Your task to perform on an android device: Open Youtube and go to the subscriptions tab Image 0: 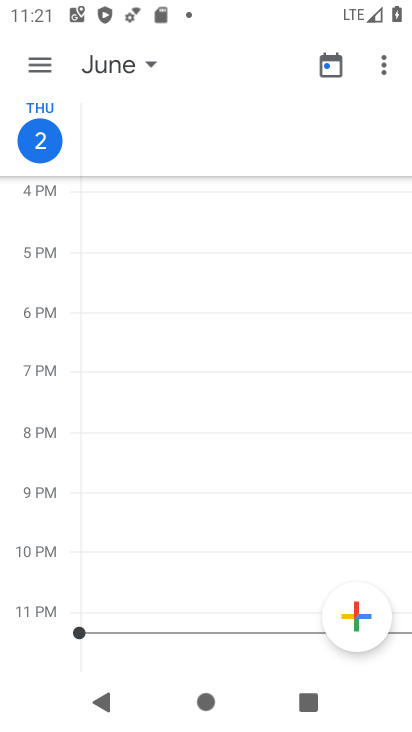
Step 0: press home button
Your task to perform on an android device: Open Youtube and go to the subscriptions tab Image 1: 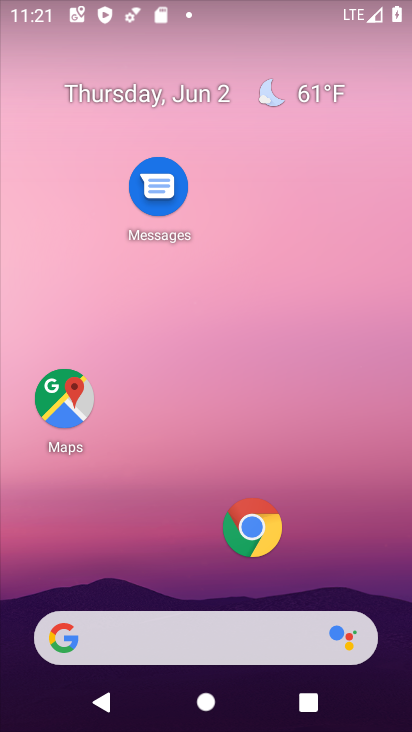
Step 1: drag from (211, 589) to (204, 135)
Your task to perform on an android device: Open Youtube and go to the subscriptions tab Image 2: 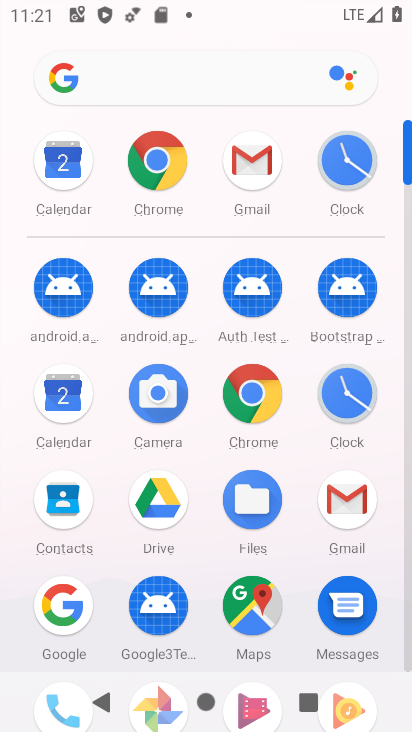
Step 2: drag from (293, 586) to (340, 125)
Your task to perform on an android device: Open Youtube and go to the subscriptions tab Image 3: 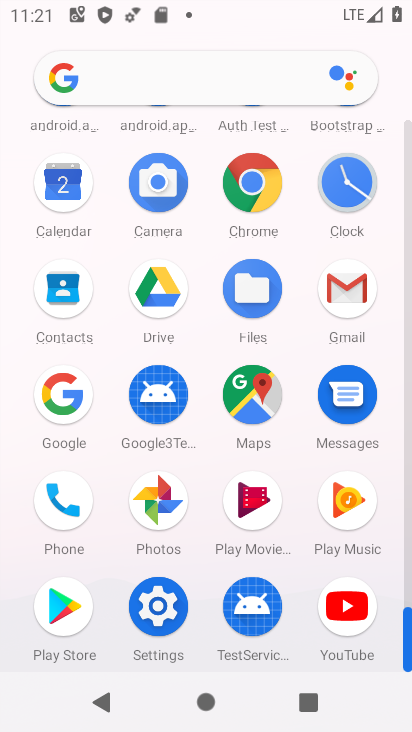
Step 3: click (344, 598)
Your task to perform on an android device: Open Youtube and go to the subscriptions tab Image 4: 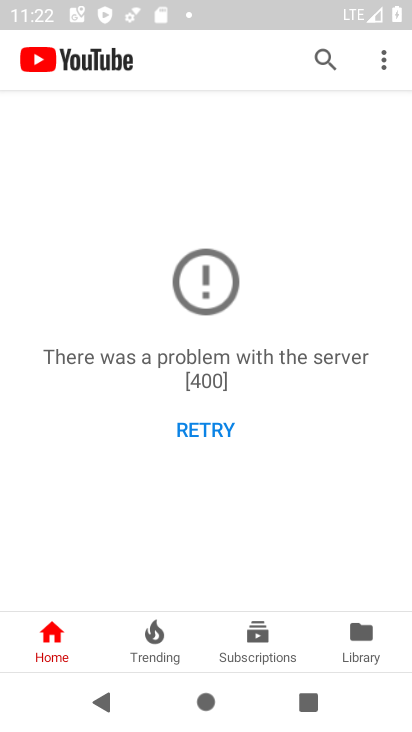
Step 4: click (258, 633)
Your task to perform on an android device: Open Youtube and go to the subscriptions tab Image 5: 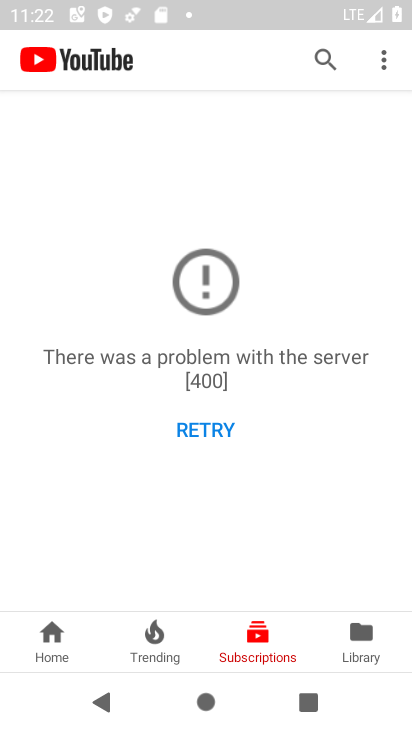
Step 5: task complete